Your task to perform on an android device: Open Google Maps and go to "Timeline" Image 0: 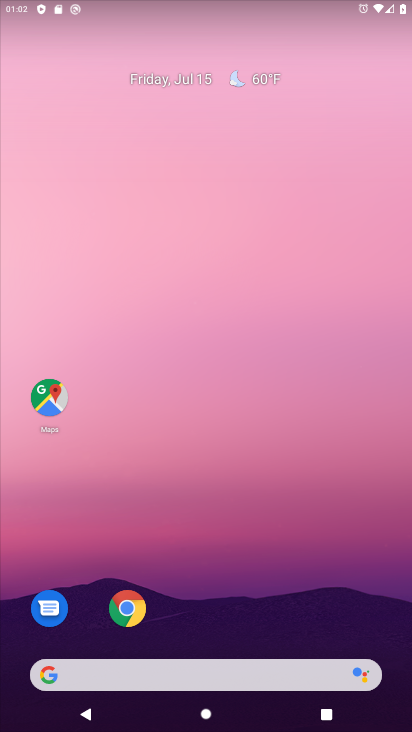
Step 0: press home button
Your task to perform on an android device: Open Google Maps and go to "Timeline" Image 1: 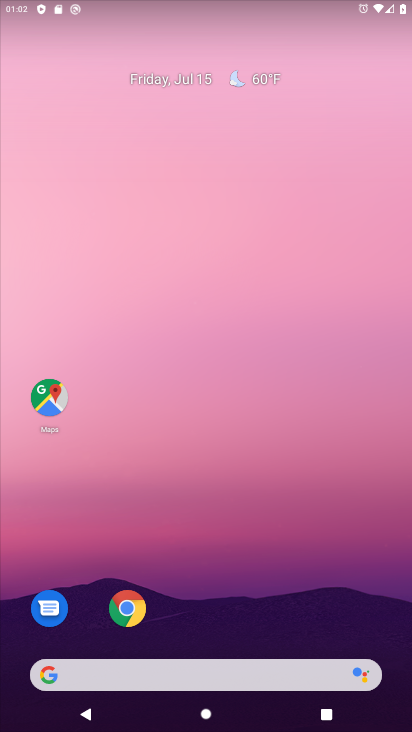
Step 1: drag from (316, 570) to (351, 5)
Your task to perform on an android device: Open Google Maps and go to "Timeline" Image 2: 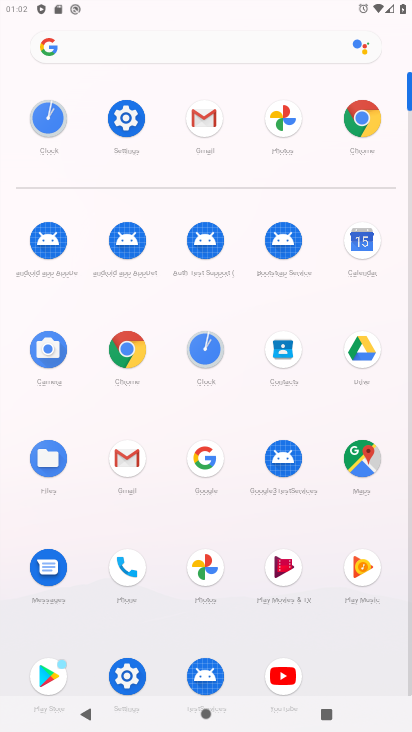
Step 2: click (344, 474)
Your task to perform on an android device: Open Google Maps and go to "Timeline" Image 3: 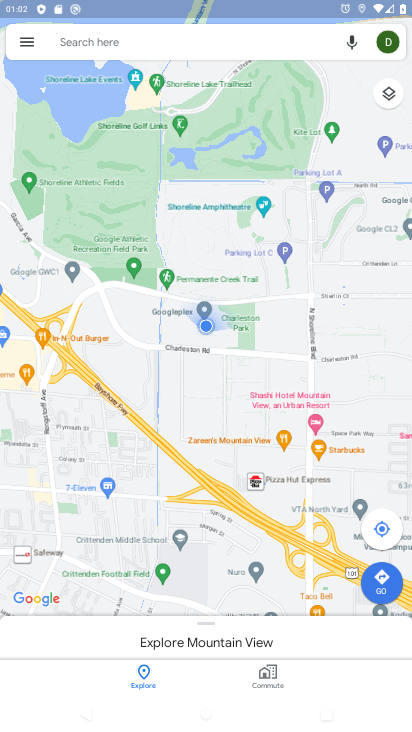
Step 3: click (34, 43)
Your task to perform on an android device: Open Google Maps and go to "Timeline" Image 4: 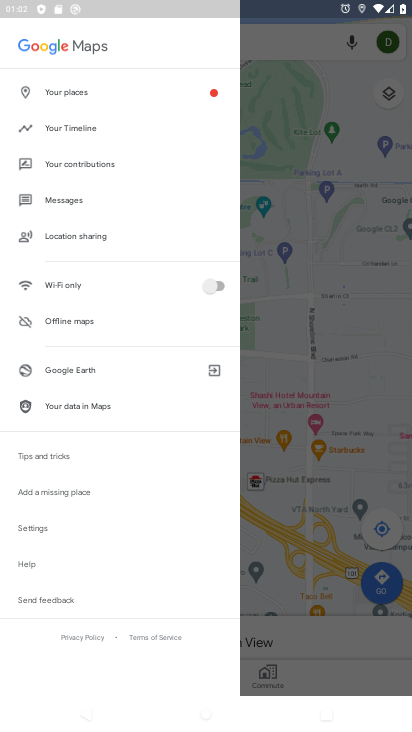
Step 4: click (55, 125)
Your task to perform on an android device: Open Google Maps and go to "Timeline" Image 5: 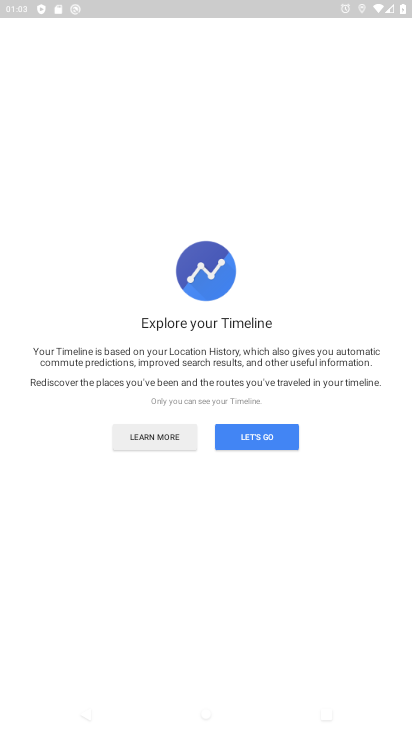
Step 5: click (301, 446)
Your task to perform on an android device: Open Google Maps and go to "Timeline" Image 6: 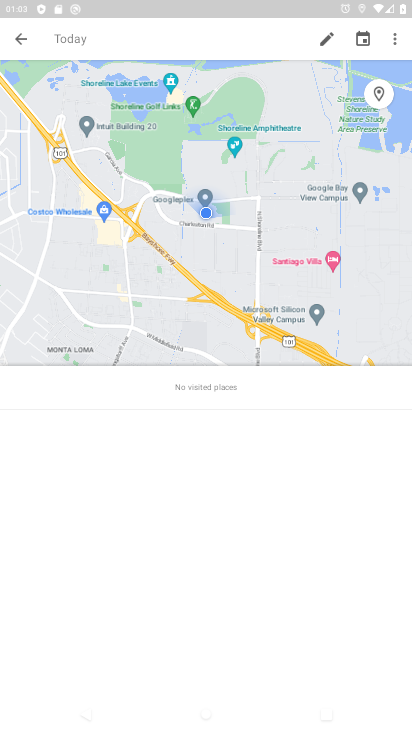
Step 6: task complete